Your task to perform on an android device: turn on javascript in the chrome app Image 0: 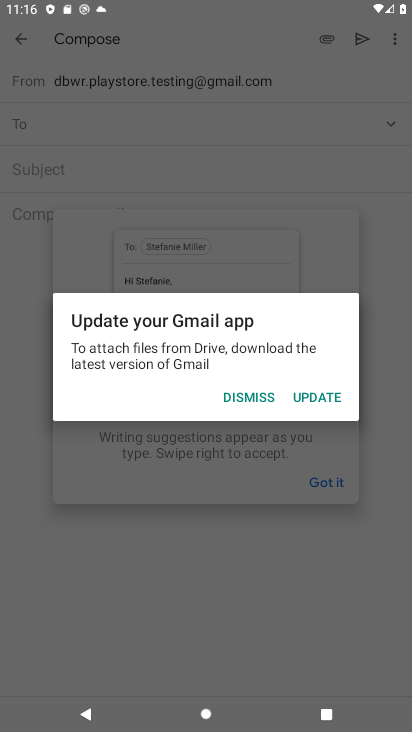
Step 0: press home button
Your task to perform on an android device: turn on javascript in the chrome app Image 1: 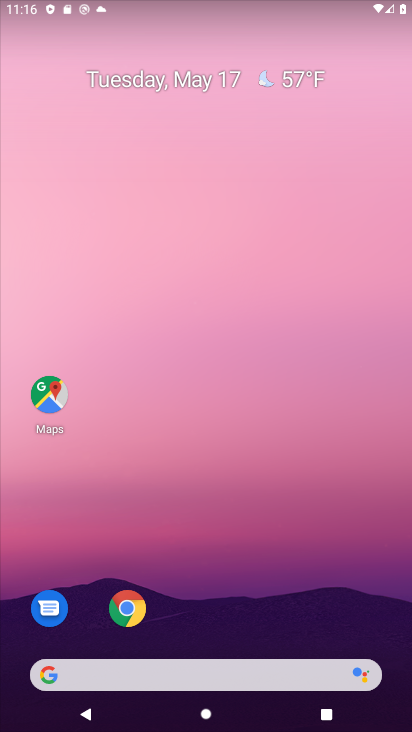
Step 1: click (136, 613)
Your task to perform on an android device: turn on javascript in the chrome app Image 2: 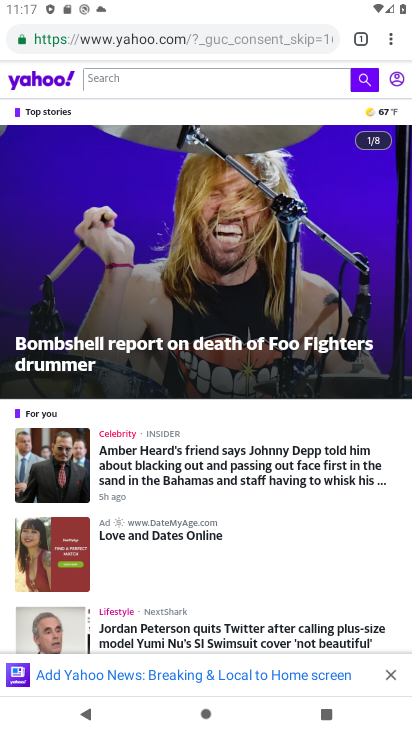
Step 2: click (391, 42)
Your task to perform on an android device: turn on javascript in the chrome app Image 3: 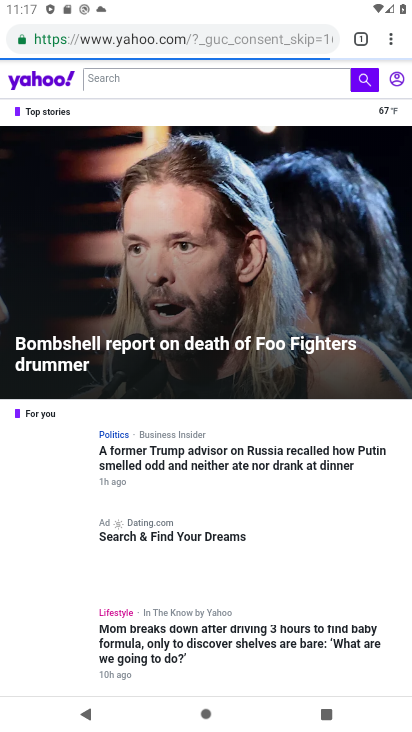
Step 3: click (393, 44)
Your task to perform on an android device: turn on javascript in the chrome app Image 4: 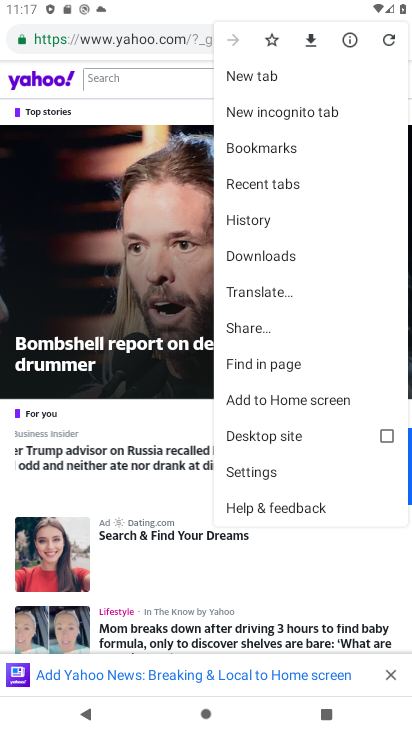
Step 4: click (257, 476)
Your task to perform on an android device: turn on javascript in the chrome app Image 5: 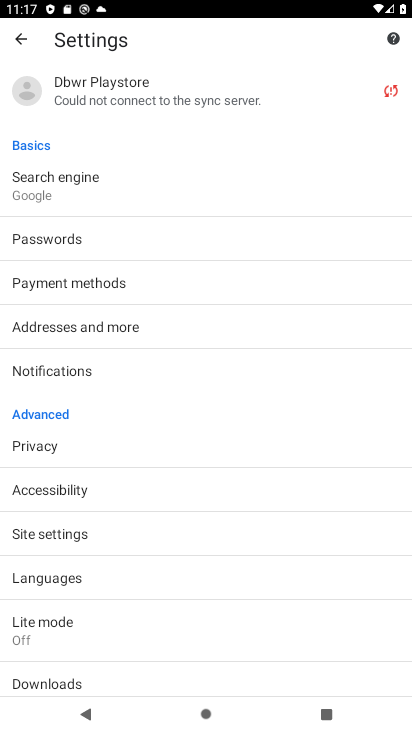
Step 5: click (71, 535)
Your task to perform on an android device: turn on javascript in the chrome app Image 6: 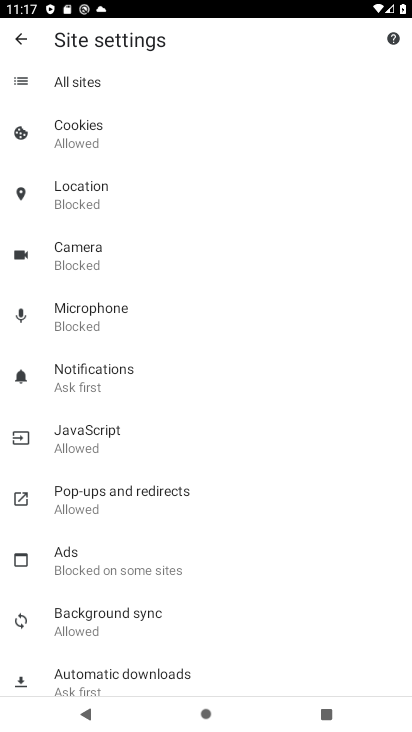
Step 6: click (110, 444)
Your task to perform on an android device: turn on javascript in the chrome app Image 7: 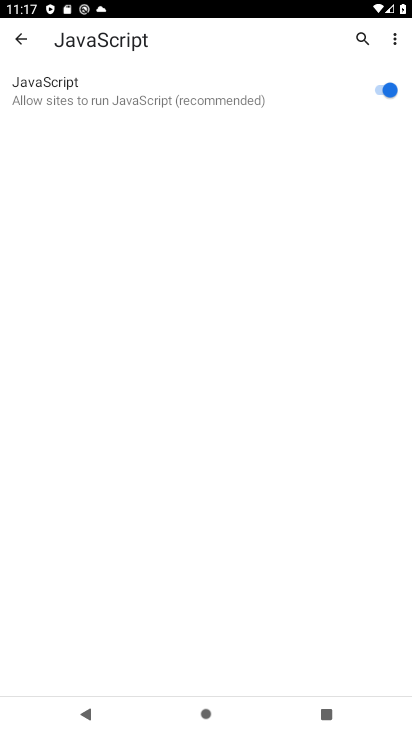
Step 7: task complete